Your task to perform on an android device: toggle notifications settings in the gmail app Image 0: 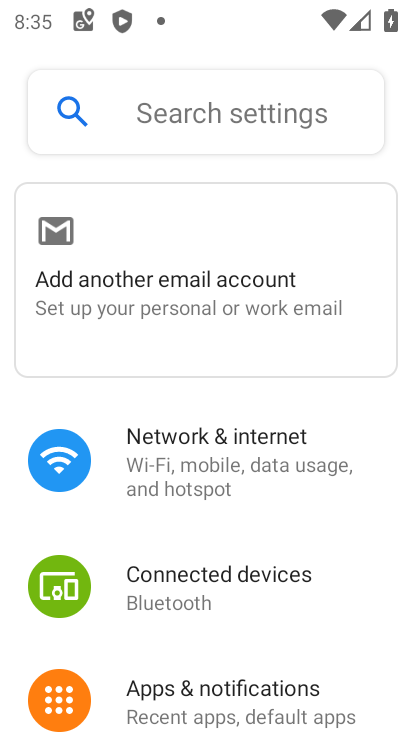
Step 0: click (196, 696)
Your task to perform on an android device: toggle notifications settings in the gmail app Image 1: 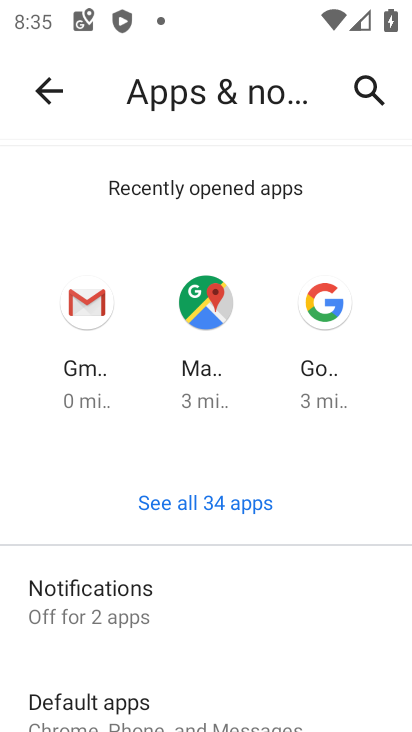
Step 1: click (90, 313)
Your task to perform on an android device: toggle notifications settings in the gmail app Image 2: 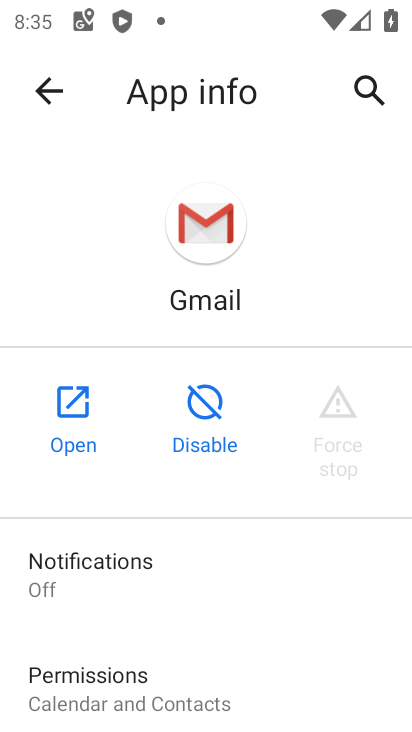
Step 2: click (229, 590)
Your task to perform on an android device: toggle notifications settings in the gmail app Image 3: 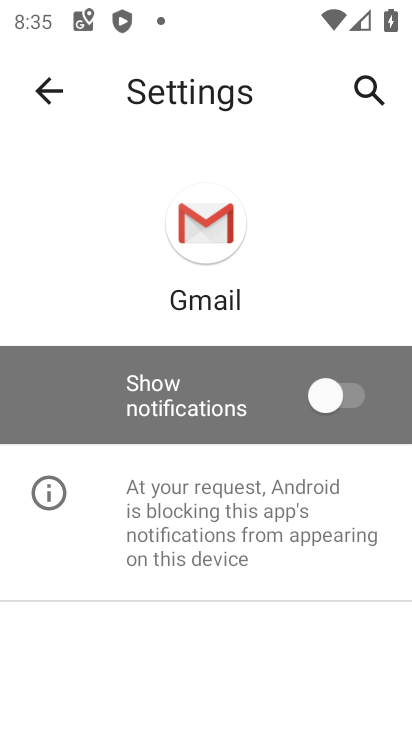
Step 3: click (353, 390)
Your task to perform on an android device: toggle notifications settings in the gmail app Image 4: 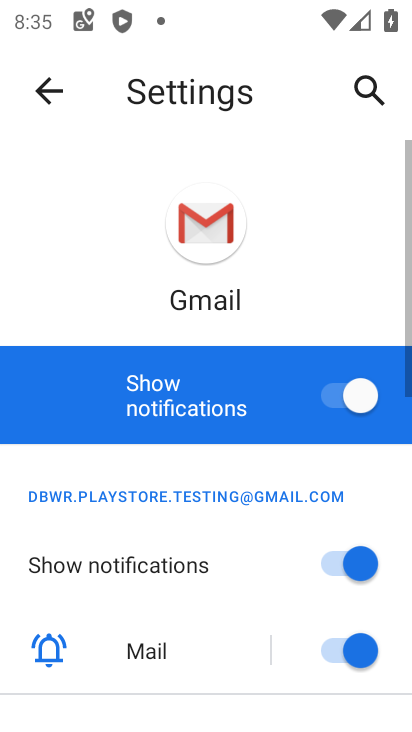
Step 4: click (353, 390)
Your task to perform on an android device: toggle notifications settings in the gmail app Image 5: 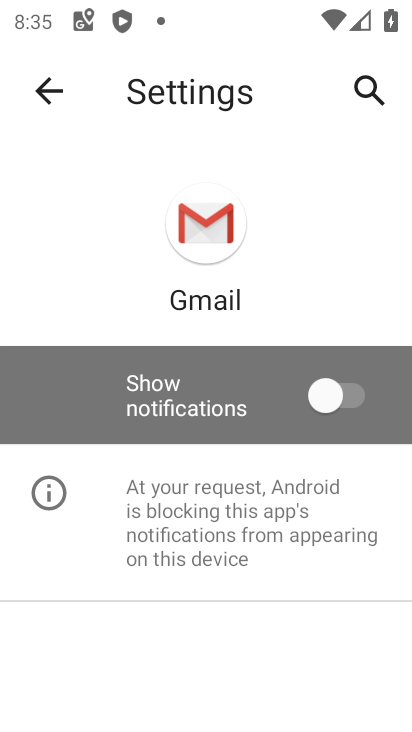
Step 5: click (353, 390)
Your task to perform on an android device: toggle notifications settings in the gmail app Image 6: 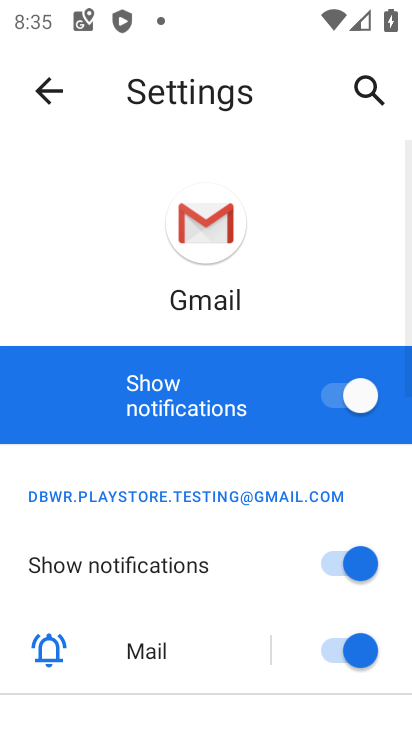
Step 6: task complete